Your task to perform on an android device: Open Google Chrome and open the bookmarks view Image 0: 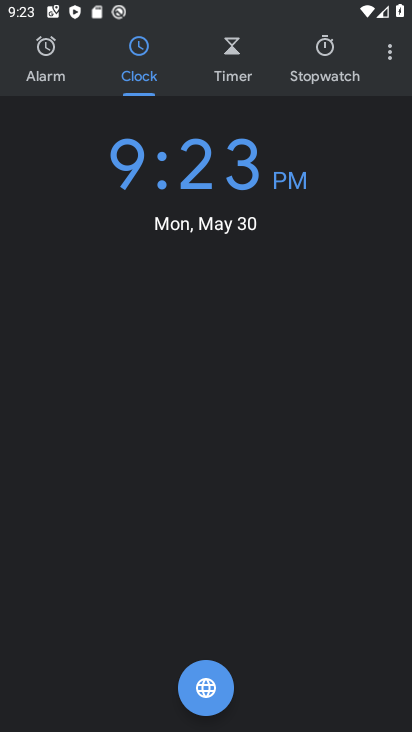
Step 0: press home button
Your task to perform on an android device: Open Google Chrome and open the bookmarks view Image 1: 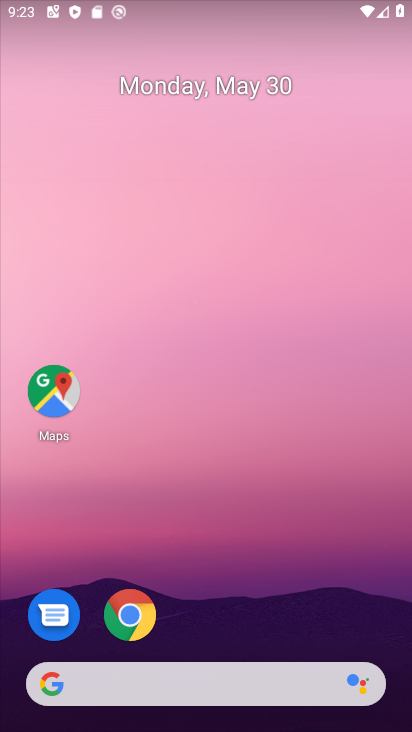
Step 1: click (136, 614)
Your task to perform on an android device: Open Google Chrome and open the bookmarks view Image 2: 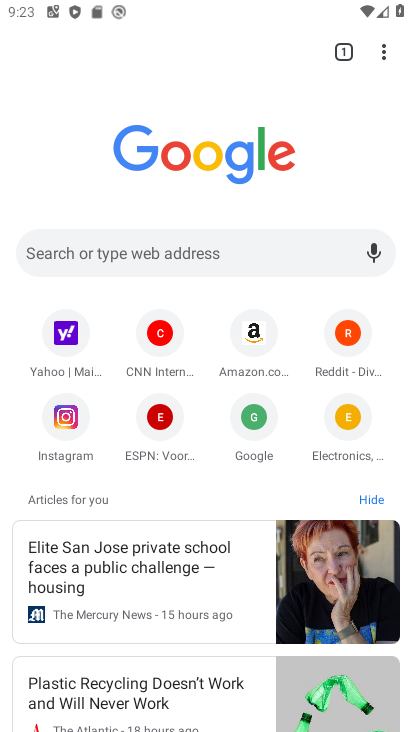
Step 2: click (385, 46)
Your task to perform on an android device: Open Google Chrome and open the bookmarks view Image 3: 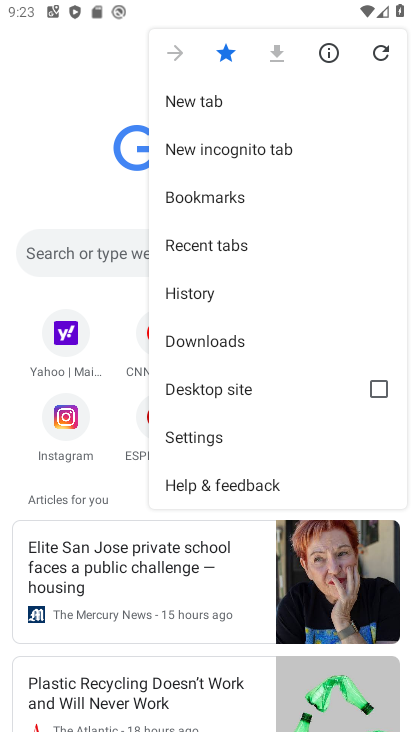
Step 3: click (227, 196)
Your task to perform on an android device: Open Google Chrome and open the bookmarks view Image 4: 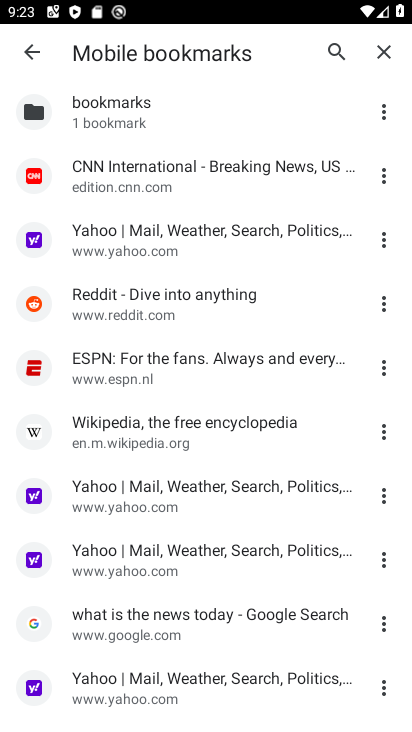
Step 4: click (191, 292)
Your task to perform on an android device: Open Google Chrome and open the bookmarks view Image 5: 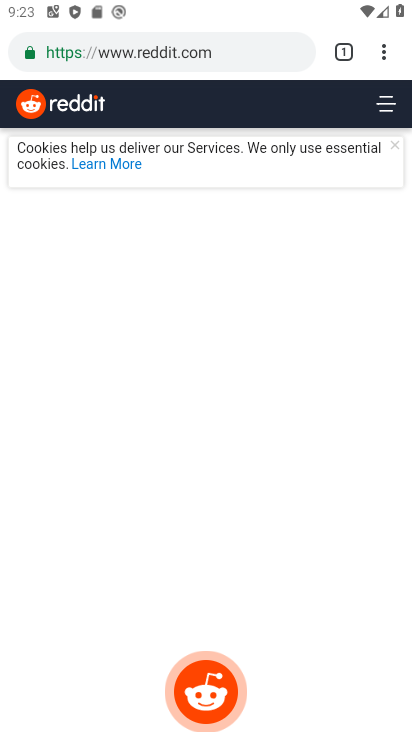
Step 5: task complete